Your task to perform on an android device: Open Reddit.com Image 0: 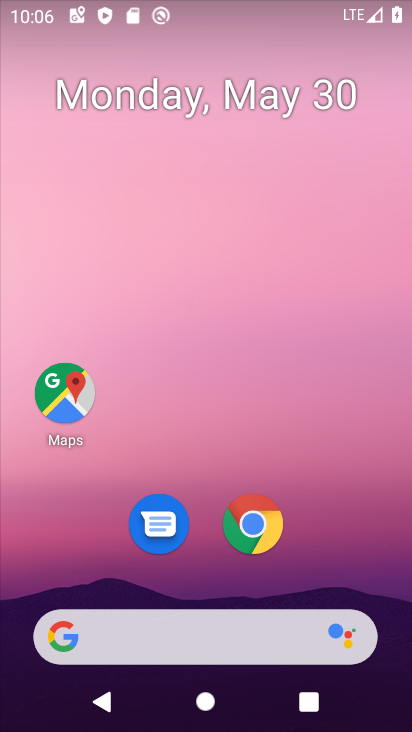
Step 0: click (271, 630)
Your task to perform on an android device: Open Reddit.com Image 1: 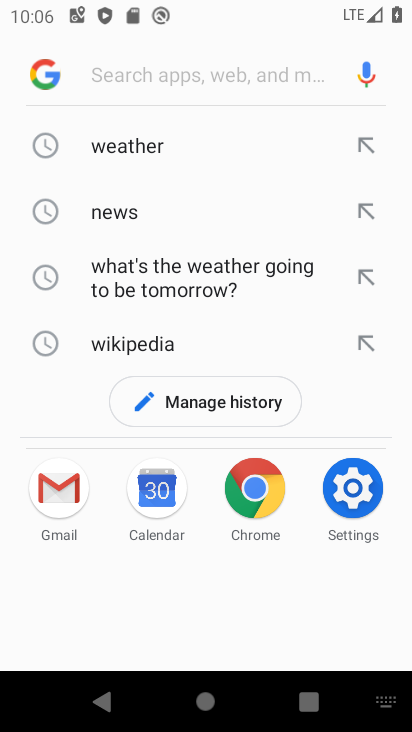
Step 1: type "reddit.com"
Your task to perform on an android device: Open Reddit.com Image 2: 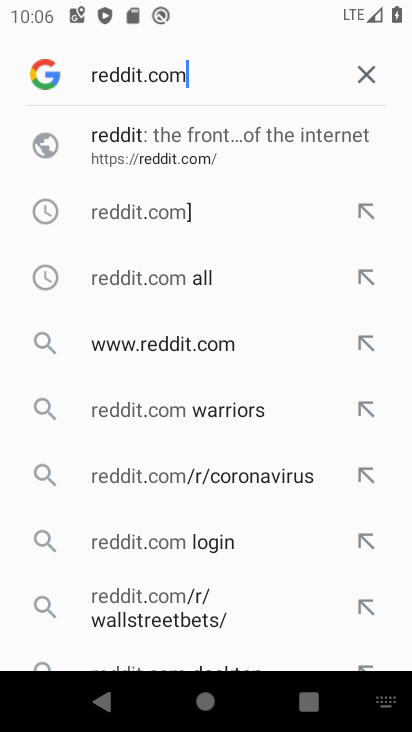
Step 2: click (149, 155)
Your task to perform on an android device: Open Reddit.com Image 3: 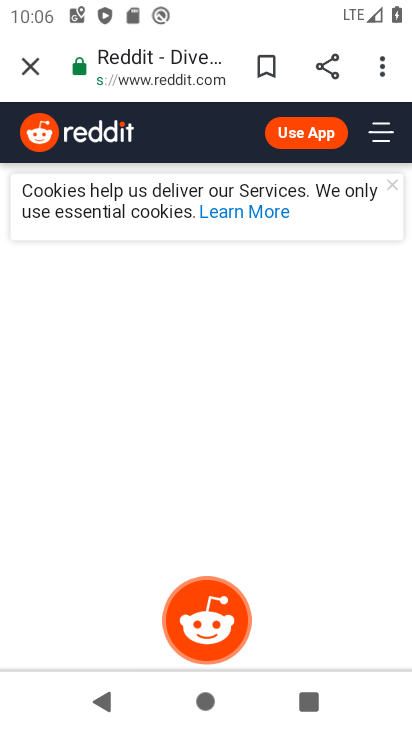
Step 3: task complete